Your task to perform on an android device: Is it going to rain today? Image 0: 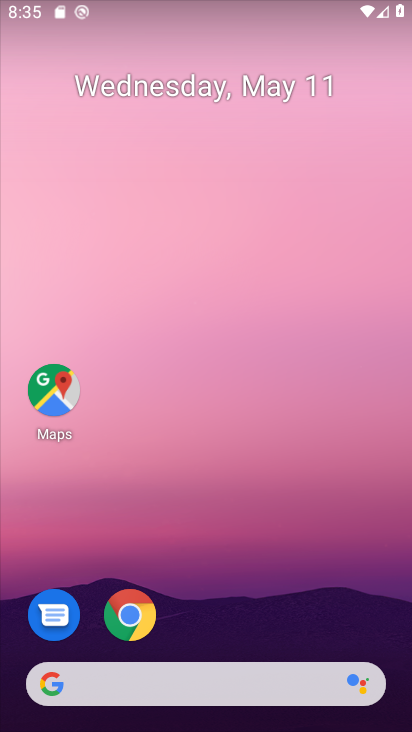
Step 0: click (51, 687)
Your task to perform on an android device: Is it going to rain today? Image 1: 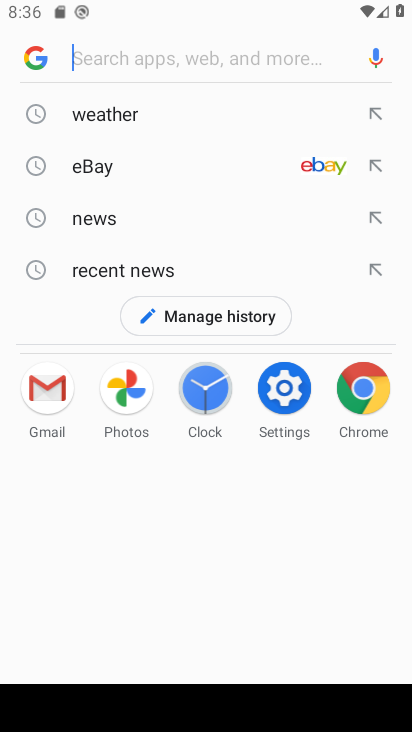
Step 1: click (39, 62)
Your task to perform on an android device: Is it going to rain today? Image 2: 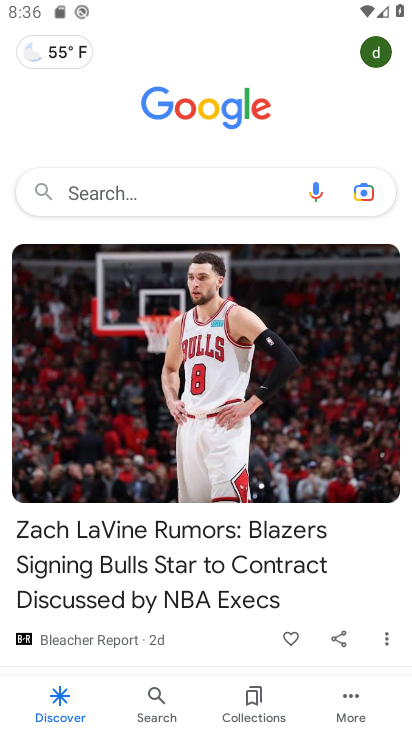
Step 2: click (65, 50)
Your task to perform on an android device: Is it going to rain today? Image 3: 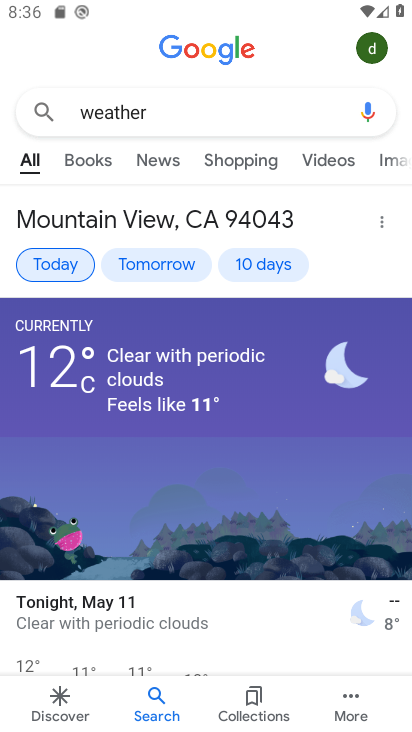
Step 3: task complete